Your task to perform on an android device: toggle show notifications on the lock screen Image 0: 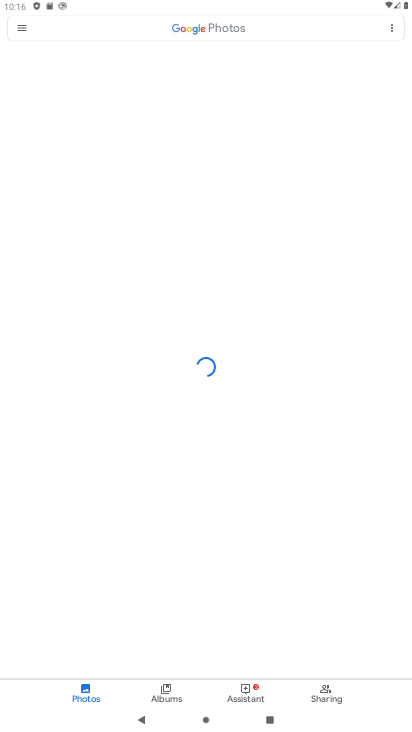
Step 0: press home button
Your task to perform on an android device: toggle show notifications on the lock screen Image 1: 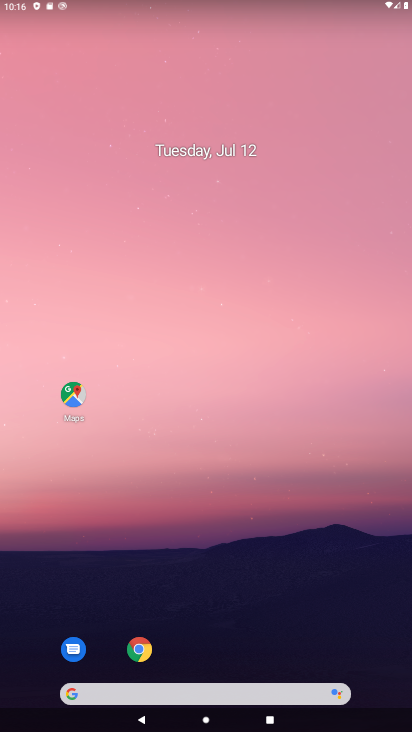
Step 1: drag from (385, 671) to (327, 164)
Your task to perform on an android device: toggle show notifications on the lock screen Image 2: 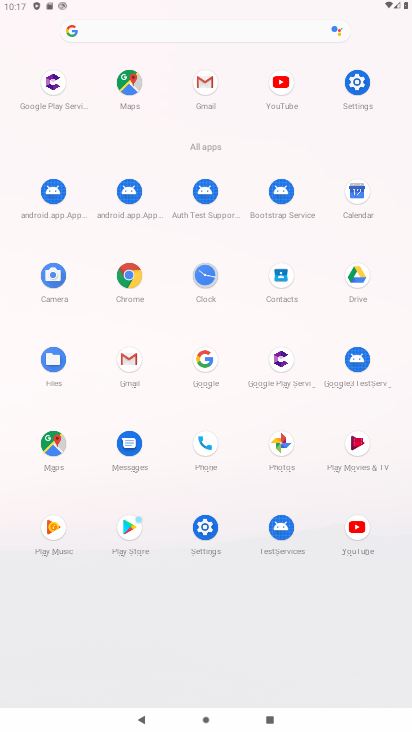
Step 2: click (206, 528)
Your task to perform on an android device: toggle show notifications on the lock screen Image 3: 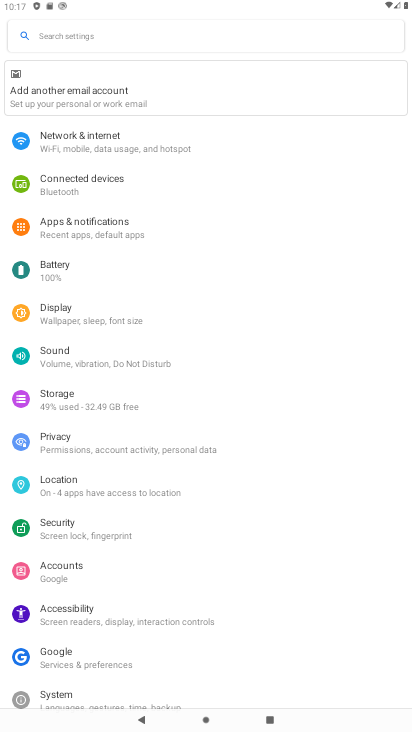
Step 3: click (75, 225)
Your task to perform on an android device: toggle show notifications on the lock screen Image 4: 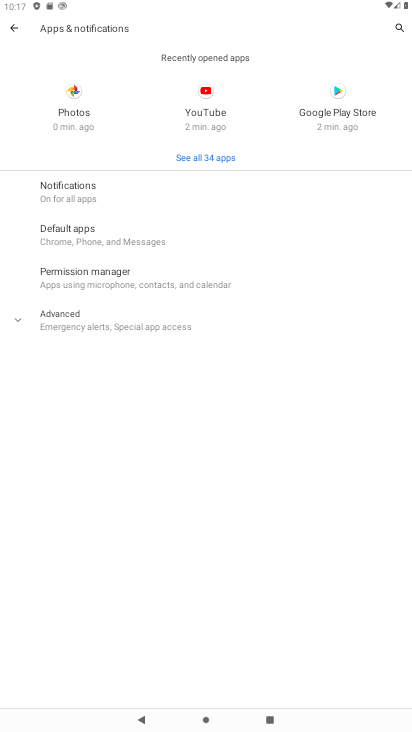
Step 4: click (66, 189)
Your task to perform on an android device: toggle show notifications on the lock screen Image 5: 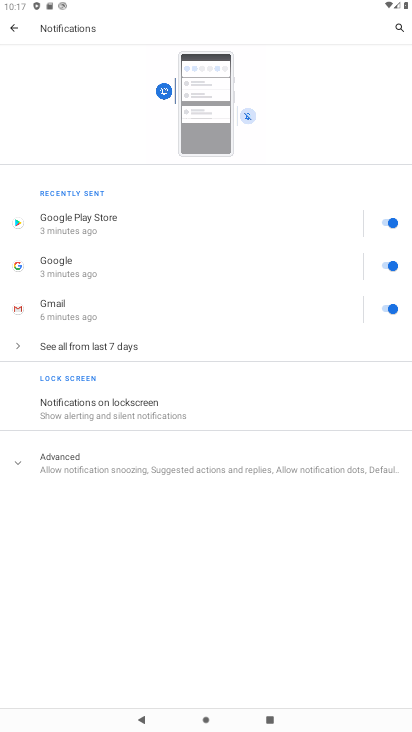
Step 5: click (96, 408)
Your task to perform on an android device: toggle show notifications on the lock screen Image 6: 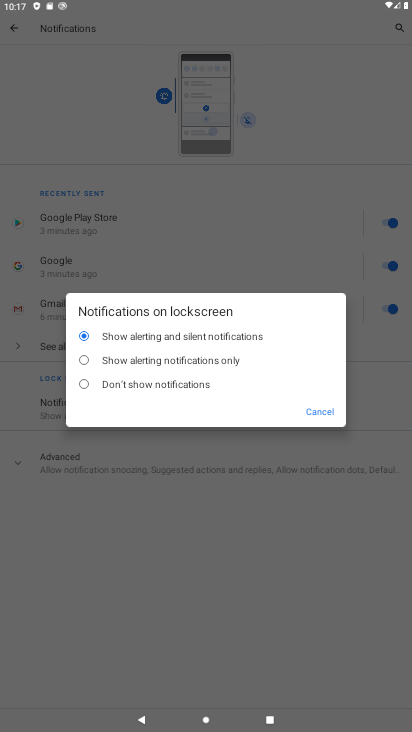
Step 6: click (85, 365)
Your task to perform on an android device: toggle show notifications on the lock screen Image 7: 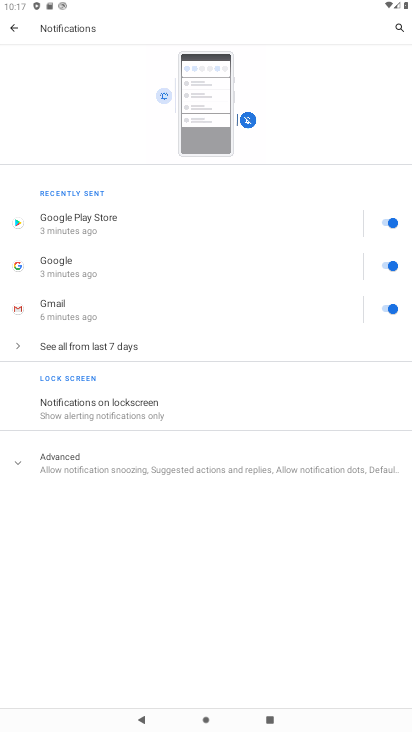
Step 7: task complete